Your task to perform on an android device: Go to sound settings Image 0: 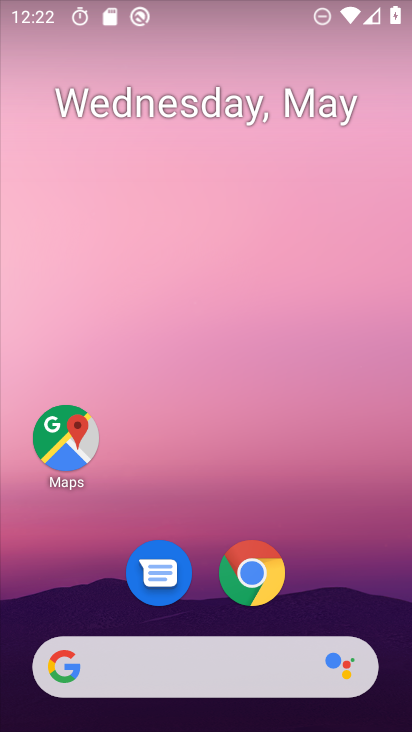
Step 0: drag from (328, 568) to (262, 30)
Your task to perform on an android device: Go to sound settings Image 1: 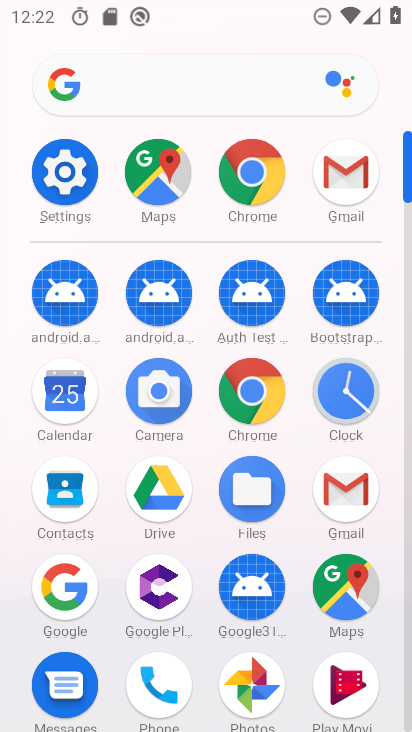
Step 1: drag from (17, 596) to (18, 259)
Your task to perform on an android device: Go to sound settings Image 2: 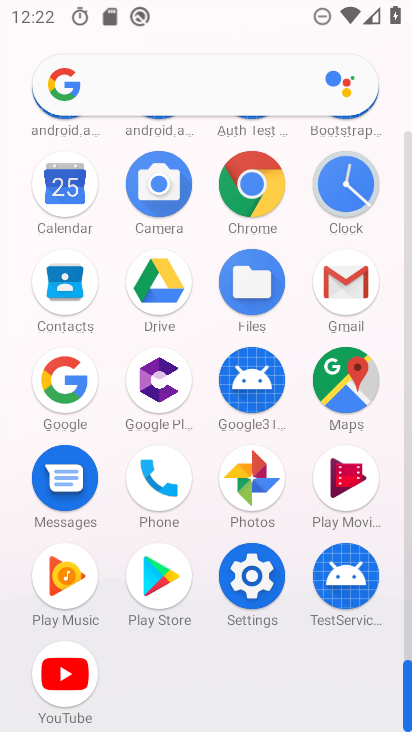
Step 2: click (251, 573)
Your task to perform on an android device: Go to sound settings Image 3: 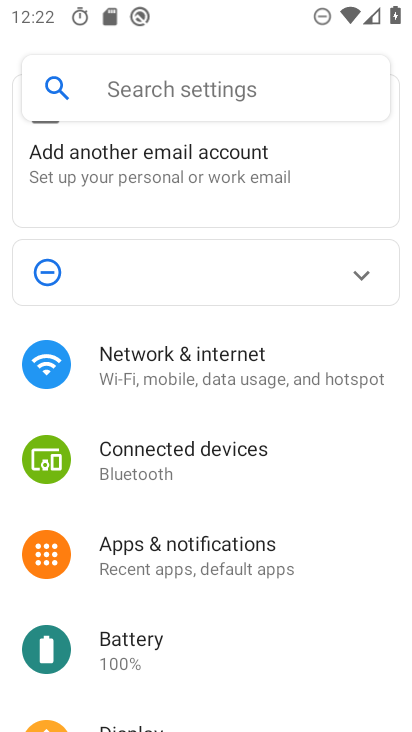
Step 3: drag from (244, 567) to (302, 152)
Your task to perform on an android device: Go to sound settings Image 4: 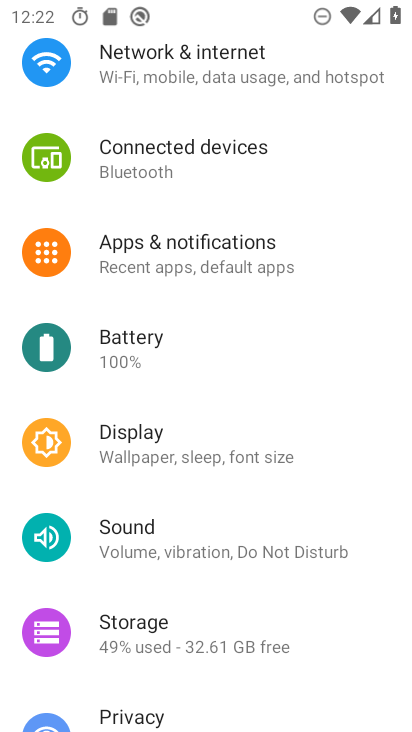
Step 4: click (187, 517)
Your task to perform on an android device: Go to sound settings Image 5: 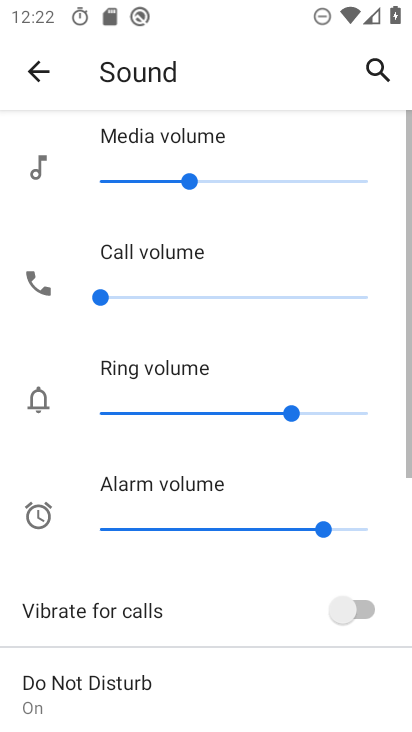
Step 5: drag from (202, 594) to (232, 171)
Your task to perform on an android device: Go to sound settings Image 6: 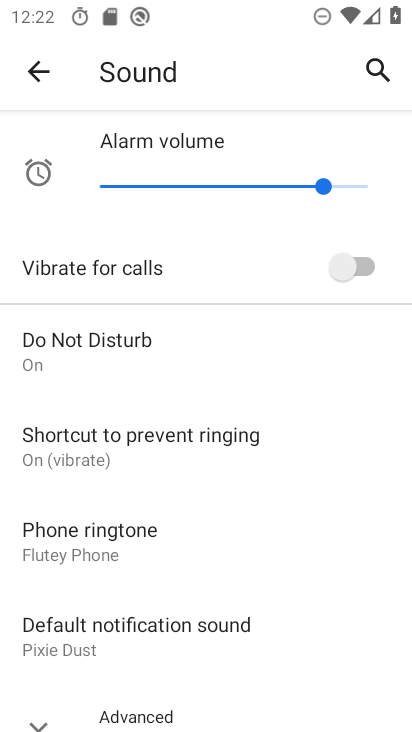
Step 6: drag from (215, 560) to (216, 156)
Your task to perform on an android device: Go to sound settings Image 7: 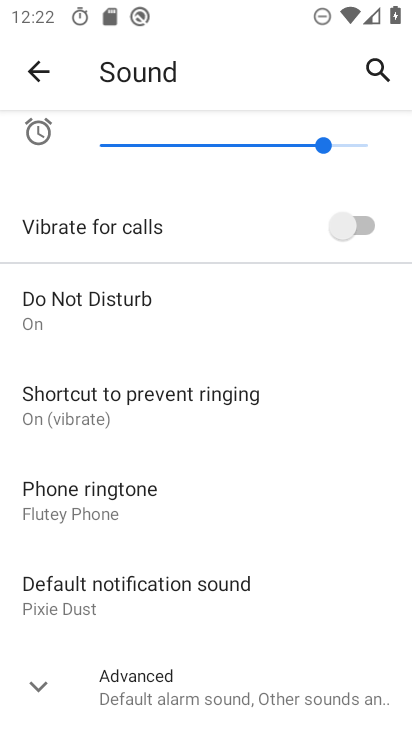
Step 7: click (45, 671)
Your task to perform on an android device: Go to sound settings Image 8: 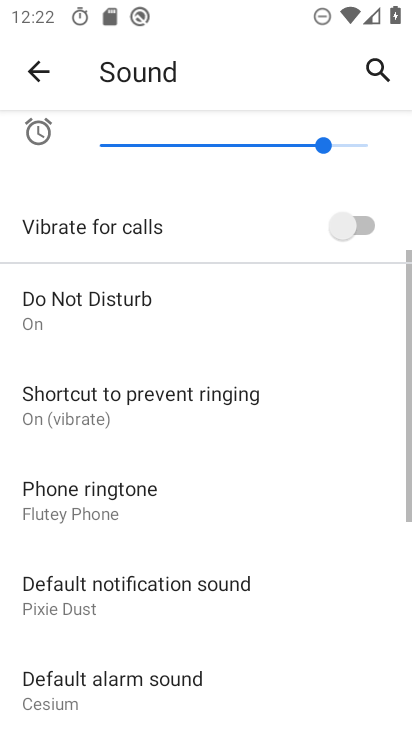
Step 8: task complete